Your task to perform on an android device: Go to CNN.com Image 0: 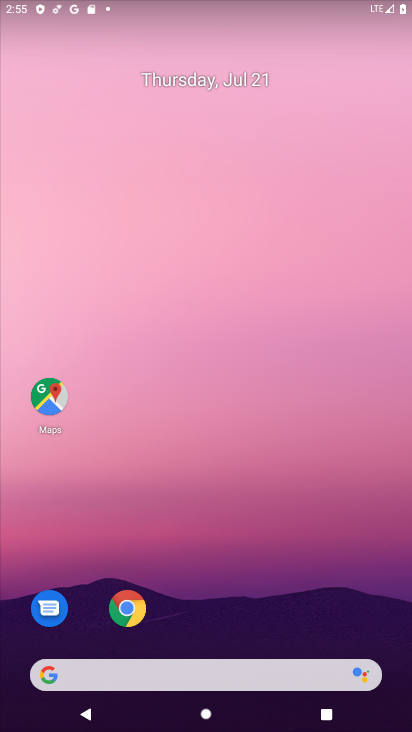
Step 0: drag from (221, 649) to (141, 64)
Your task to perform on an android device: Go to CNN.com Image 1: 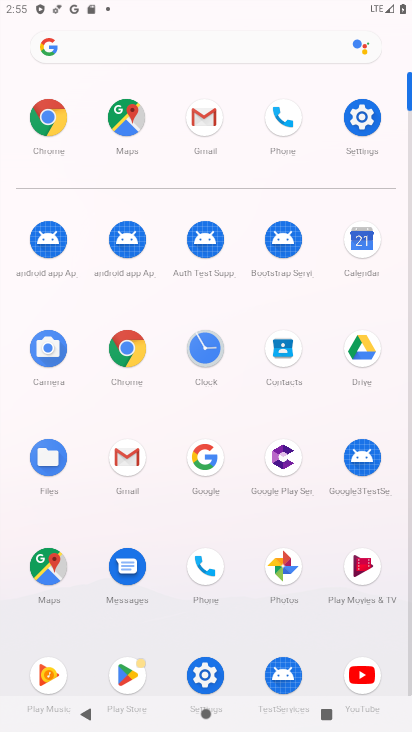
Step 1: click (124, 354)
Your task to perform on an android device: Go to CNN.com Image 2: 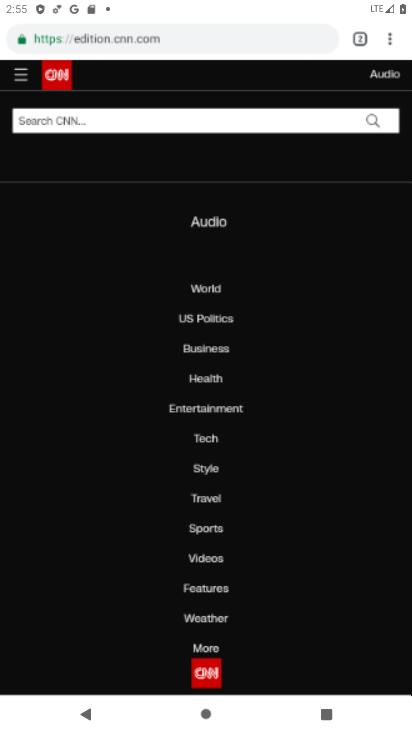
Step 2: task complete